Your task to perform on an android device: read, delete, or share a saved page in the chrome app Image 0: 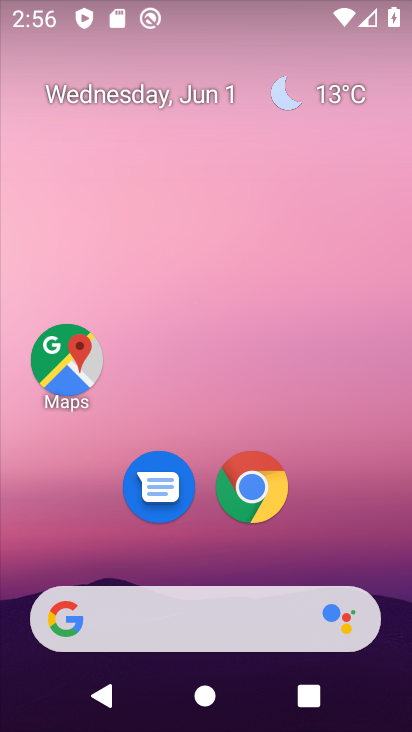
Step 0: drag from (354, 565) to (264, 196)
Your task to perform on an android device: read, delete, or share a saved page in the chrome app Image 1: 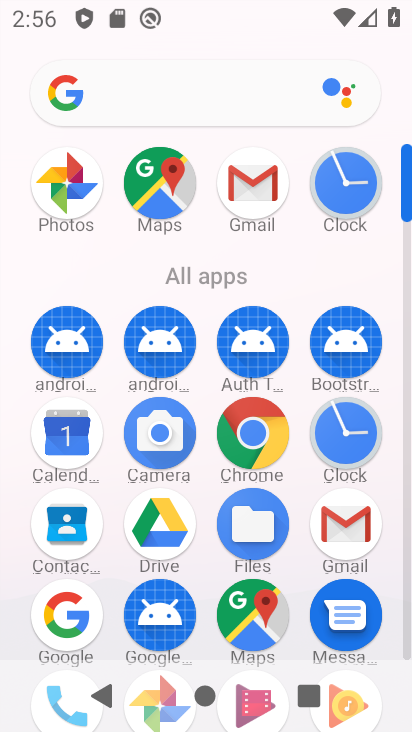
Step 1: click (270, 440)
Your task to perform on an android device: read, delete, or share a saved page in the chrome app Image 2: 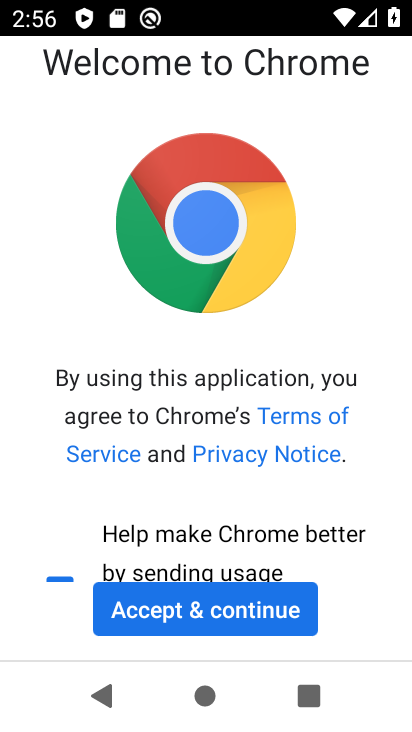
Step 2: click (275, 606)
Your task to perform on an android device: read, delete, or share a saved page in the chrome app Image 3: 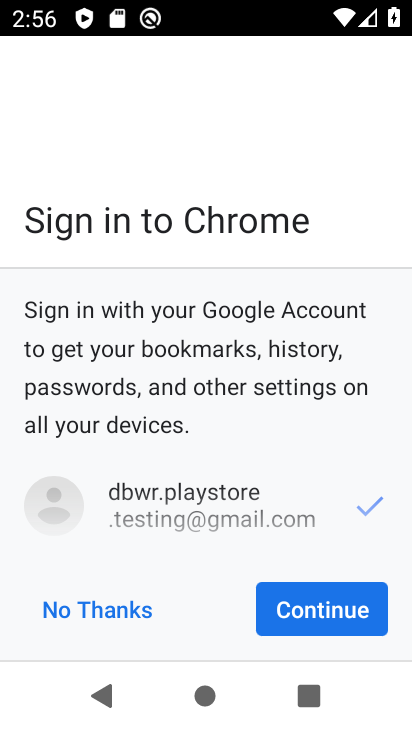
Step 3: click (357, 597)
Your task to perform on an android device: read, delete, or share a saved page in the chrome app Image 4: 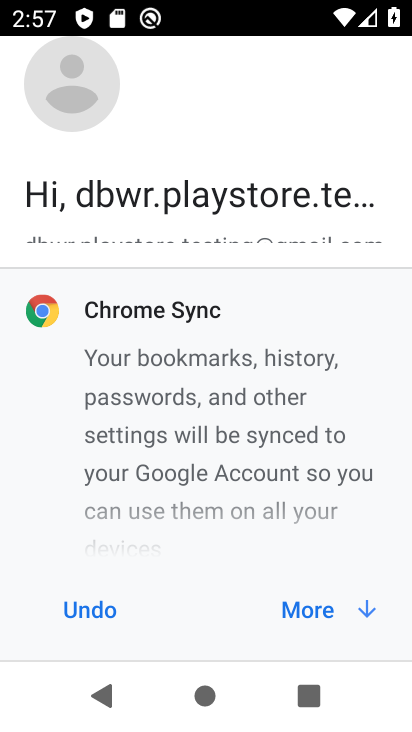
Step 4: click (353, 601)
Your task to perform on an android device: read, delete, or share a saved page in the chrome app Image 5: 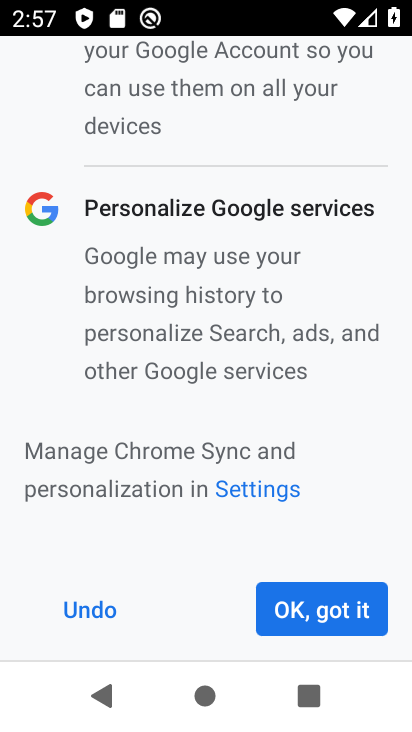
Step 5: click (353, 601)
Your task to perform on an android device: read, delete, or share a saved page in the chrome app Image 6: 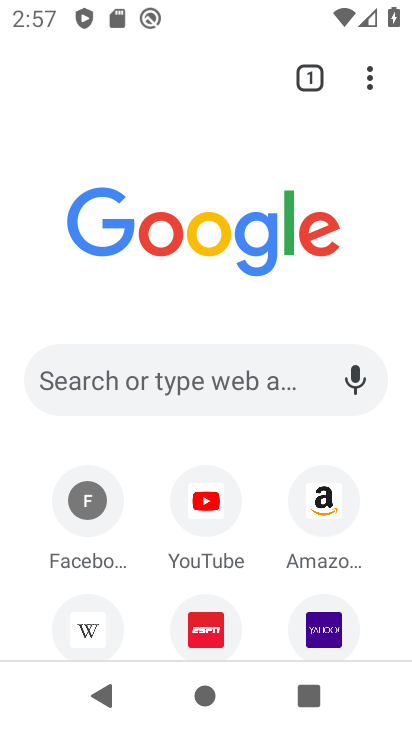
Step 6: click (379, 51)
Your task to perform on an android device: read, delete, or share a saved page in the chrome app Image 7: 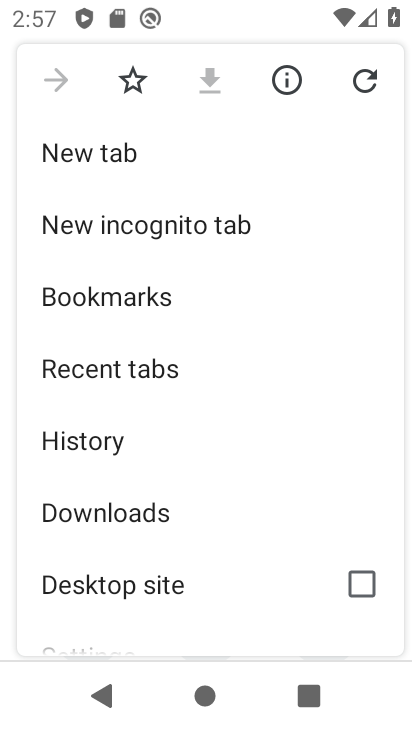
Step 7: click (103, 529)
Your task to perform on an android device: read, delete, or share a saved page in the chrome app Image 8: 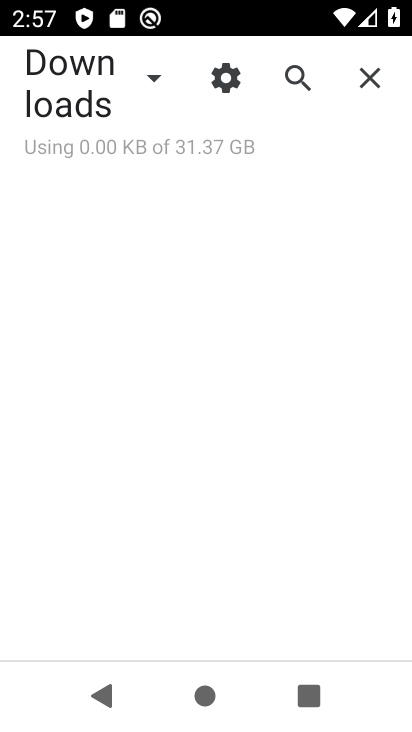
Step 8: click (133, 86)
Your task to perform on an android device: read, delete, or share a saved page in the chrome app Image 9: 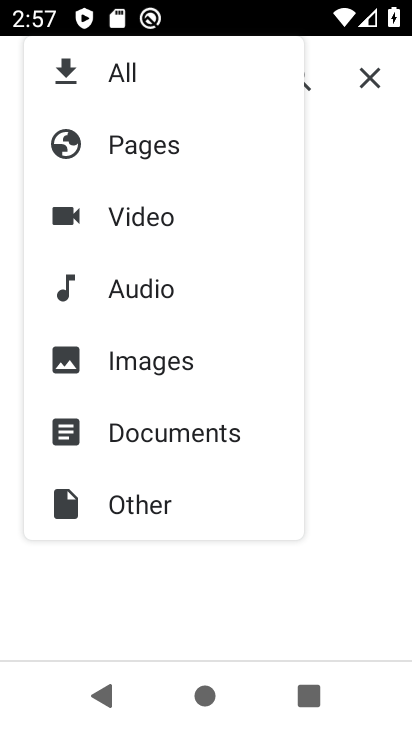
Step 9: click (145, 144)
Your task to perform on an android device: read, delete, or share a saved page in the chrome app Image 10: 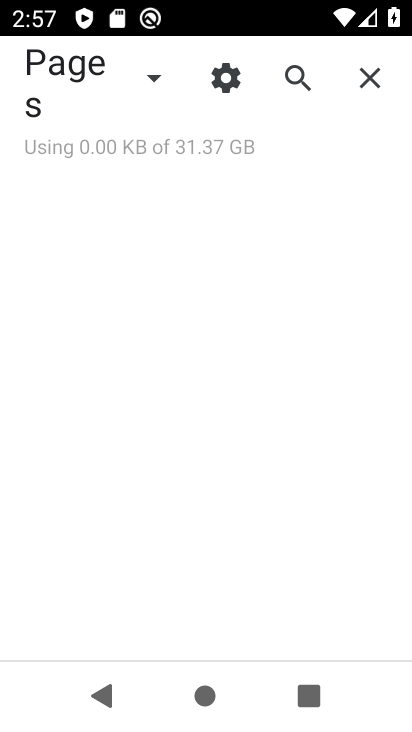
Step 10: task complete